Your task to perform on an android device: Open Youtube and go to the subscriptions tab Image 0: 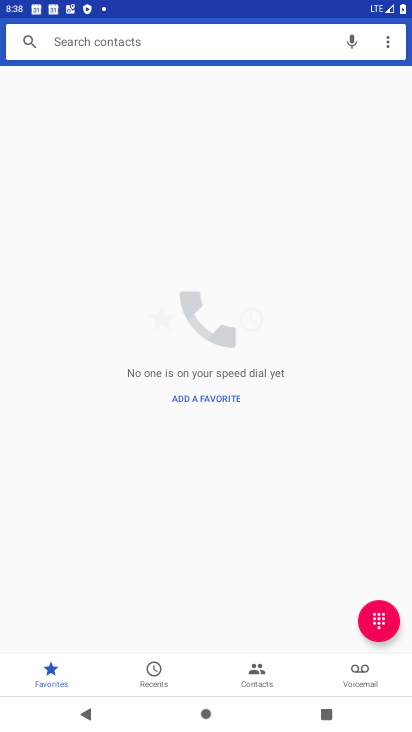
Step 0: press back button
Your task to perform on an android device: Open Youtube and go to the subscriptions tab Image 1: 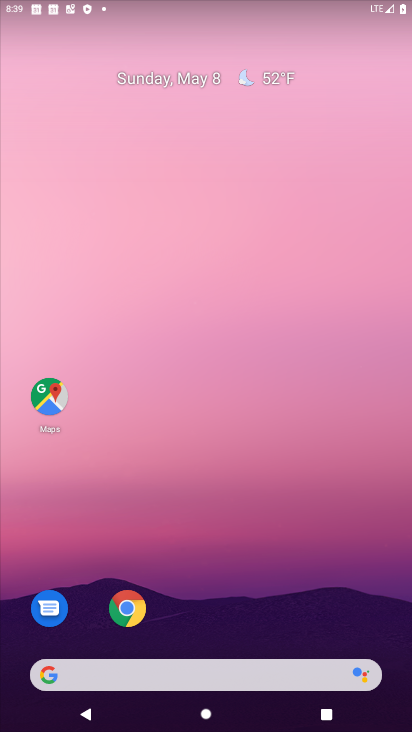
Step 1: drag from (268, 582) to (261, 24)
Your task to perform on an android device: Open Youtube and go to the subscriptions tab Image 2: 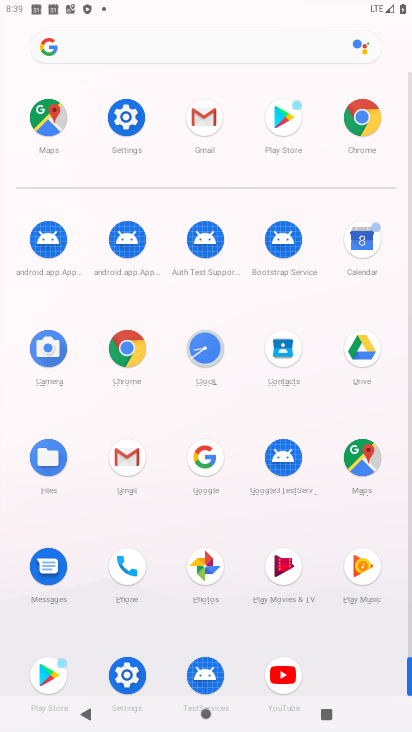
Step 2: click (284, 671)
Your task to perform on an android device: Open Youtube and go to the subscriptions tab Image 3: 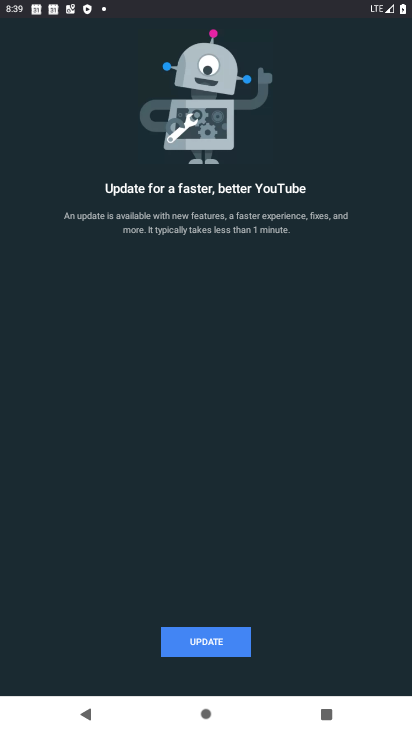
Step 3: click (174, 636)
Your task to perform on an android device: Open Youtube and go to the subscriptions tab Image 4: 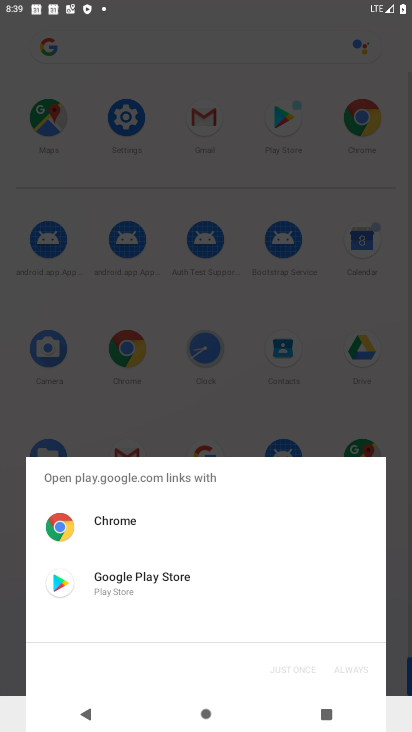
Step 4: click (178, 571)
Your task to perform on an android device: Open Youtube and go to the subscriptions tab Image 5: 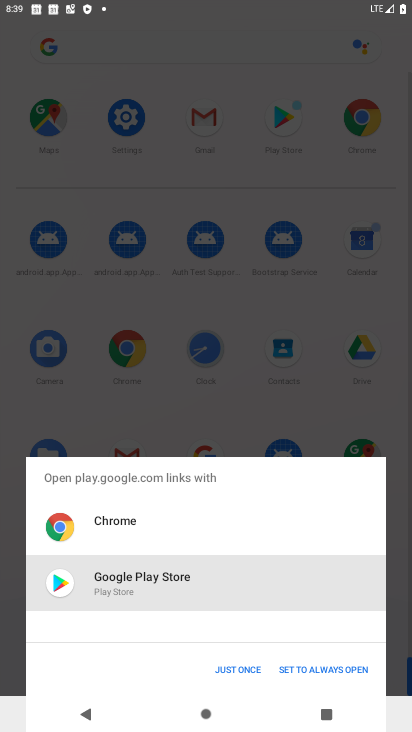
Step 5: click (223, 667)
Your task to perform on an android device: Open Youtube and go to the subscriptions tab Image 6: 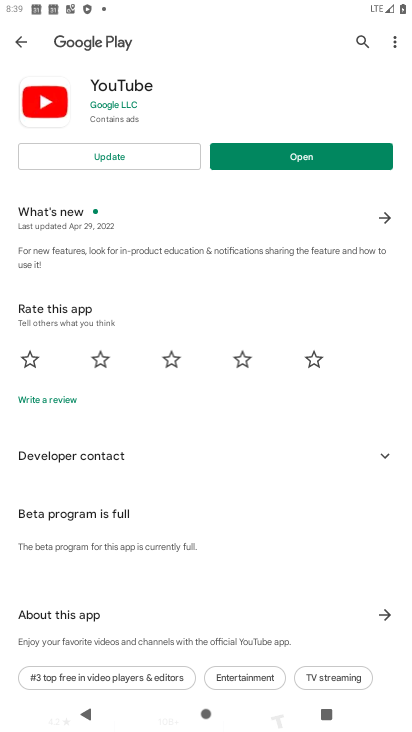
Step 6: click (130, 156)
Your task to perform on an android device: Open Youtube and go to the subscriptions tab Image 7: 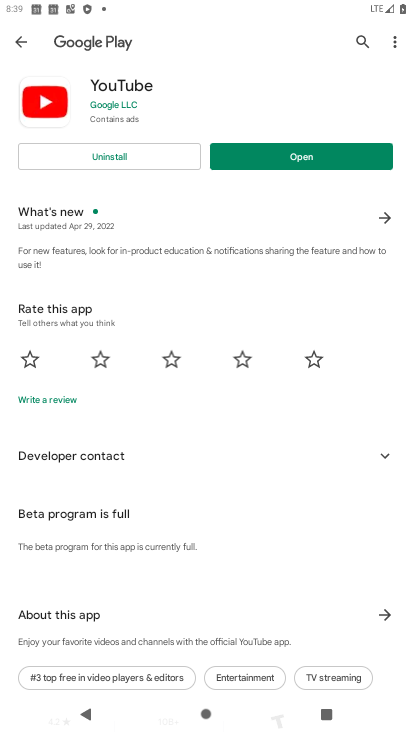
Step 7: click (294, 158)
Your task to perform on an android device: Open Youtube and go to the subscriptions tab Image 8: 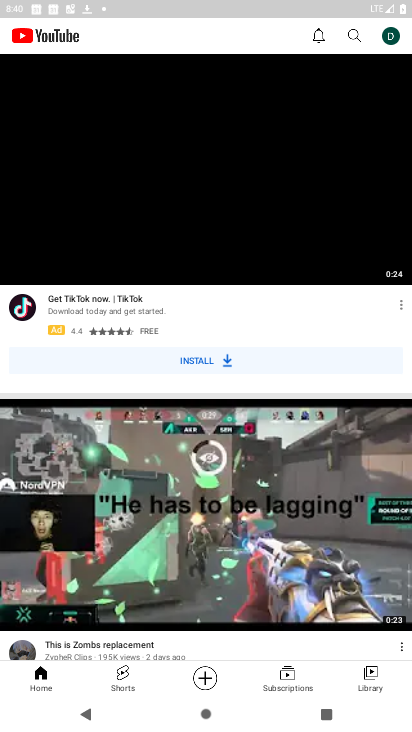
Step 8: click (281, 673)
Your task to perform on an android device: Open Youtube and go to the subscriptions tab Image 9: 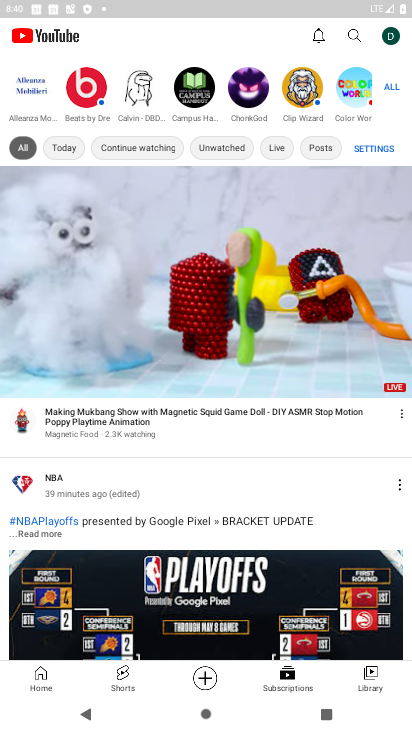
Step 9: task complete